Your task to perform on an android device: Open privacy settings Image 0: 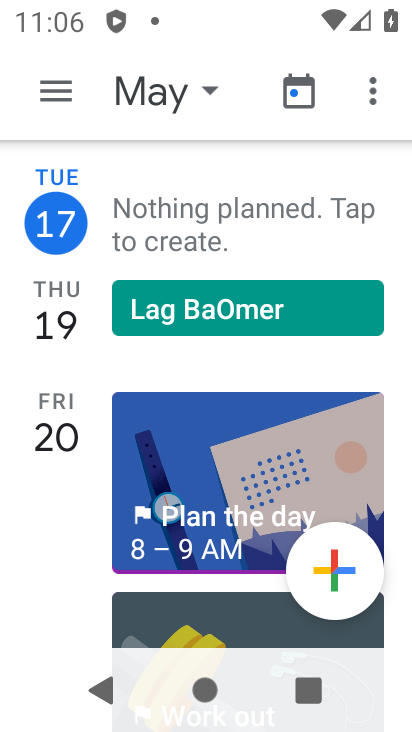
Step 0: press home button
Your task to perform on an android device: Open privacy settings Image 1: 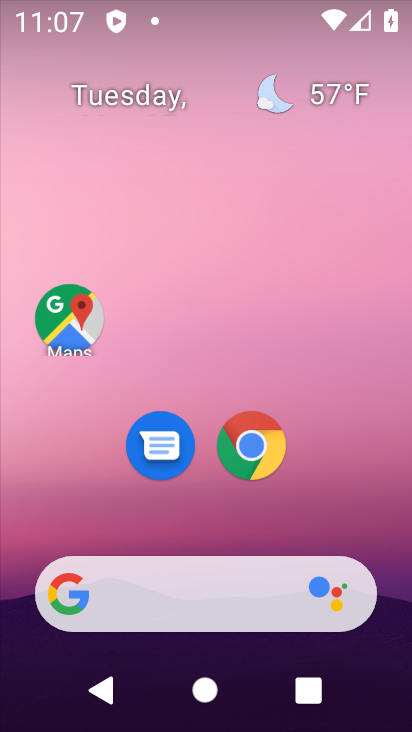
Step 1: drag from (373, 524) to (359, 87)
Your task to perform on an android device: Open privacy settings Image 2: 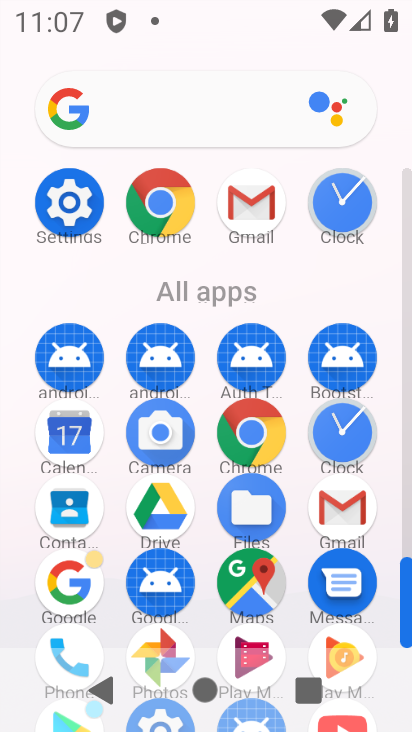
Step 2: click (81, 221)
Your task to perform on an android device: Open privacy settings Image 3: 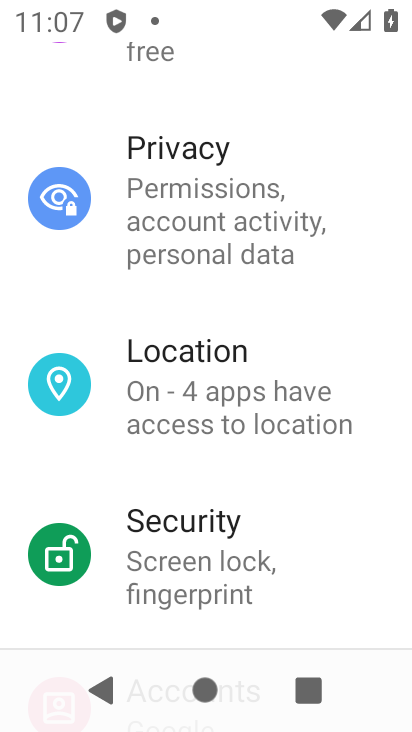
Step 3: drag from (361, 290) to (353, 428)
Your task to perform on an android device: Open privacy settings Image 4: 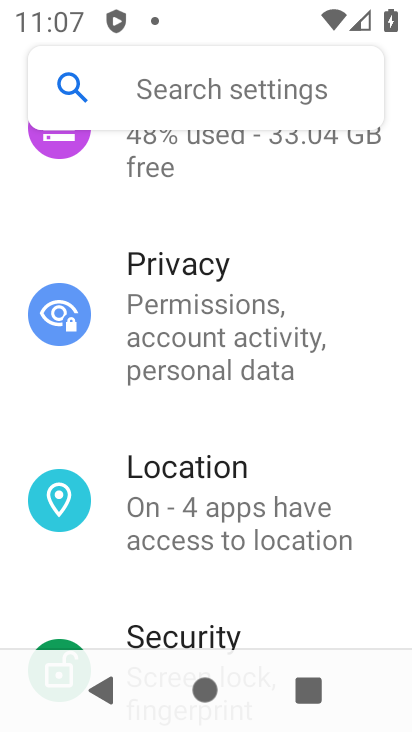
Step 4: drag from (366, 226) to (359, 364)
Your task to perform on an android device: Open privacy settings Image 5: 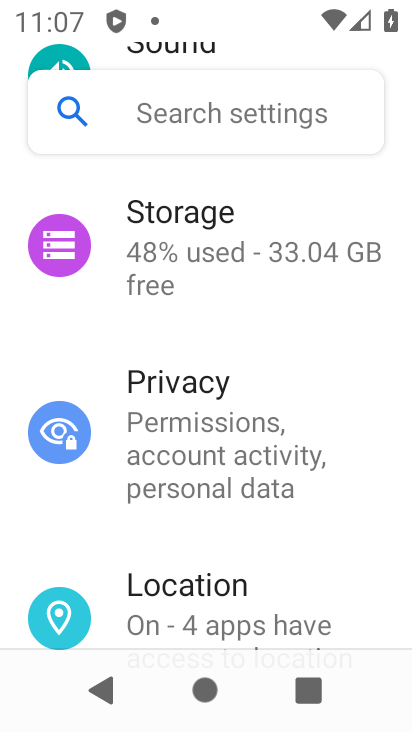
Step 5: drag from (369, 195) to (365, 357)
Your task to perform on an android device: Open privacy settings Image 6: 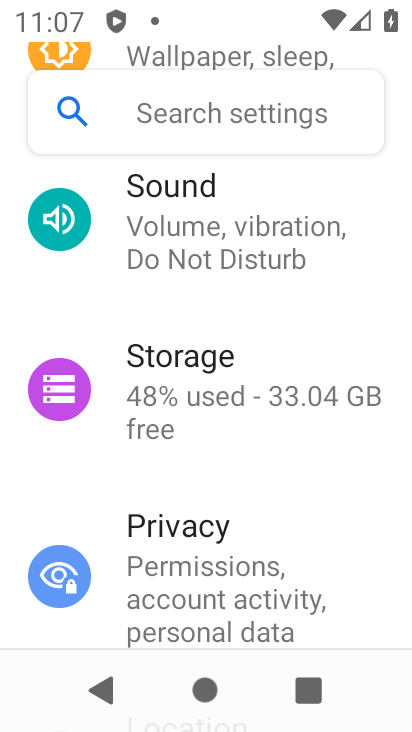
Step 6: drag from (361, 190) to (333, 357)
Your task to perform on an android device: Open privacy settings Image 7: 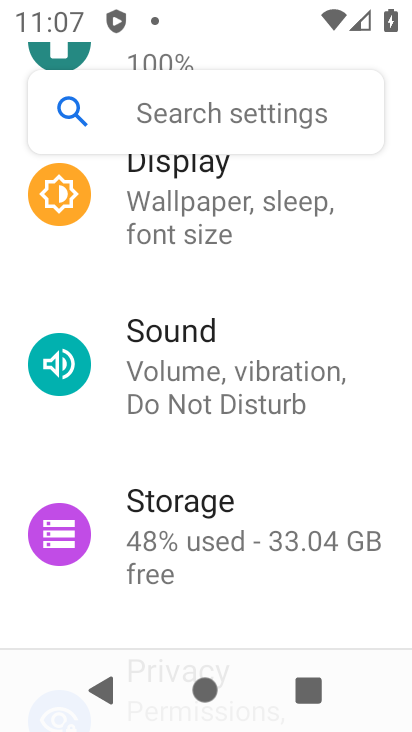
Step 7: drag from (355, 188) to (338, 349)
Your task to perform on an android device: Open privacy settings Image 8: 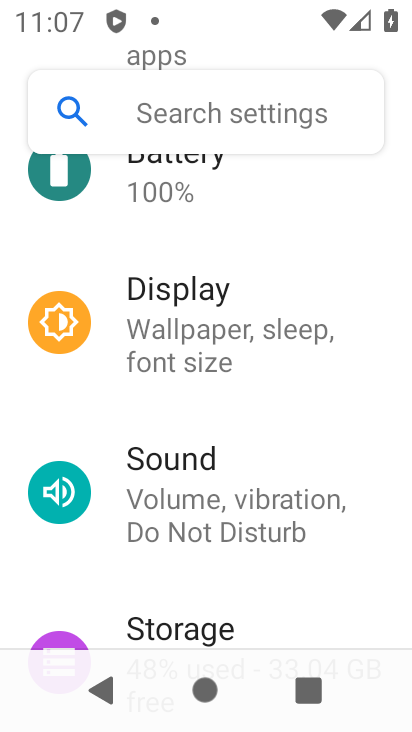
Step 8: drag from (359, 203) to (358, 327)
Your task to perform on an android device: Open privacy settings Image 9: 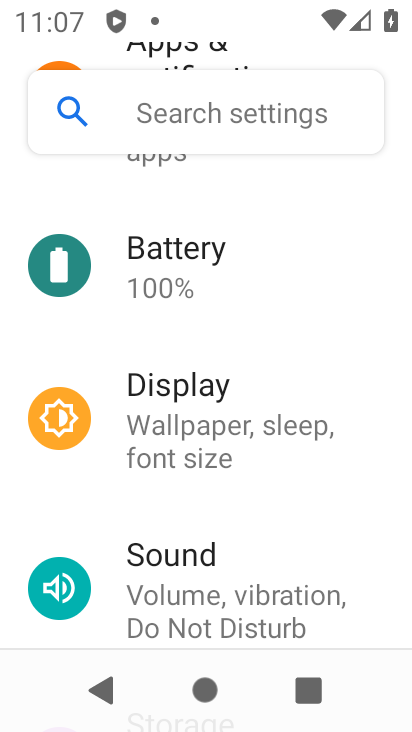
Step 9: drag from (354, 186) to (342, 408)
Your task to perform on an android device: Open privacy settings Image 10: 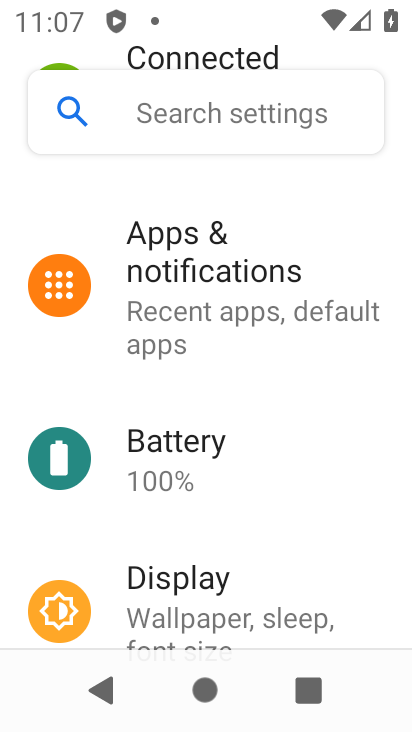
Step 10: drag from (327, 241) to (308, 418)
Your task to perform on an android device: Open privacy settings Image 11: 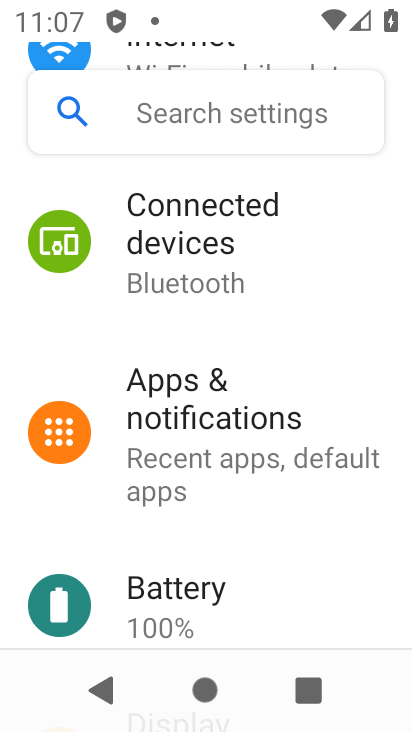
Step 11: drag from (317, 239) to (319, 405)
Your task to perform on an android device: Open privacy settings Image 12: 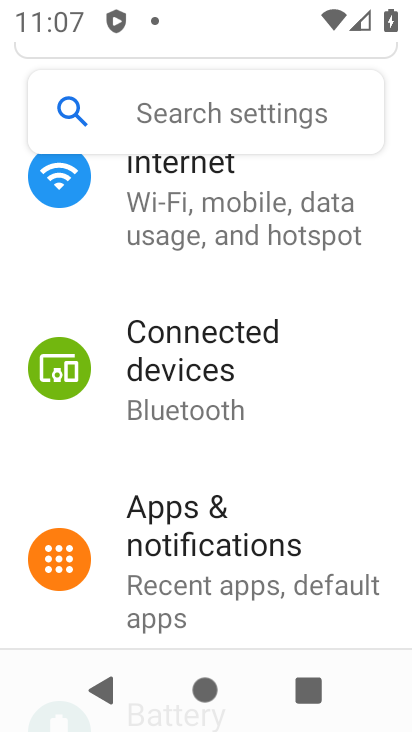
Step 12: drag from (316, 464) to (319, 322)
Your task to perform on an android device: Open privacy settings Image 13: 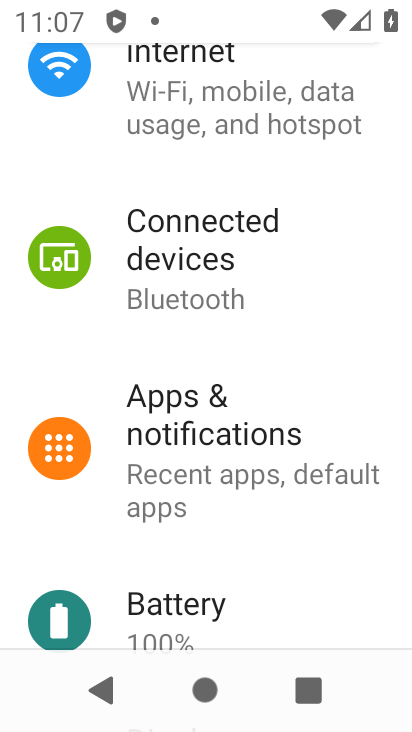
Step 13: drag from (296, 533) to (314, 345)
Your task to perform on an android device: Open privacy settings Image 14: 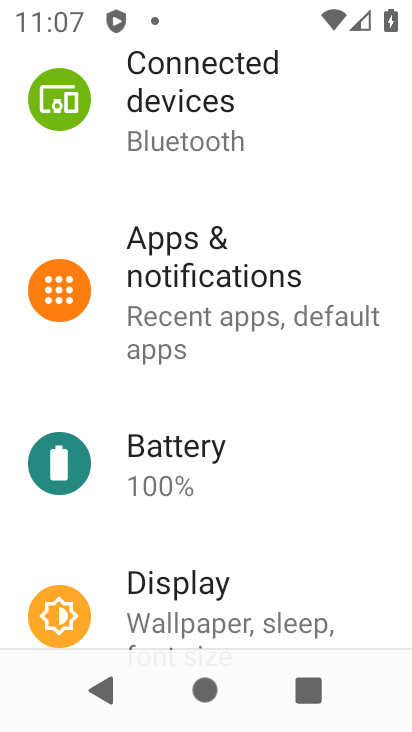
Step 14: drag from (304, 494) to (321, 348)
Your task to perform on an android device: Open privacy settings Image 15: 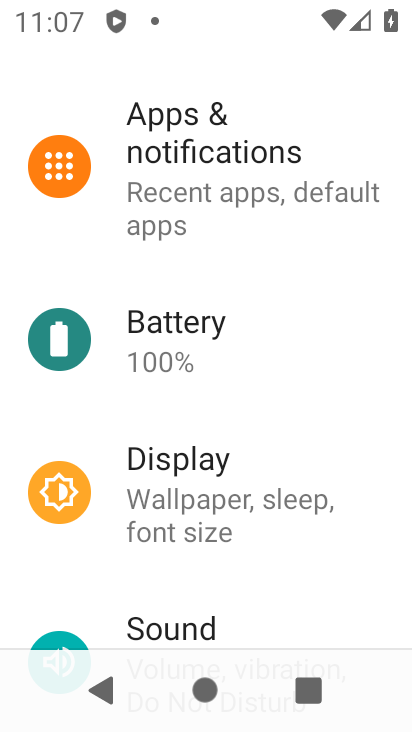
Step 15: drag from (311, 546) to (326, 354)
Your task to perform on an android device: Open privacy settings Image 16: 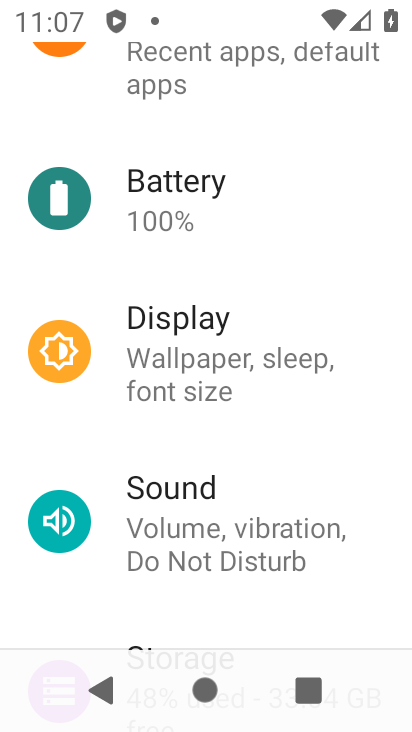
Step 16: drag from (304, 575) to (303, 399)
Your task to perform on an android device: Open privacy settings Image 17: 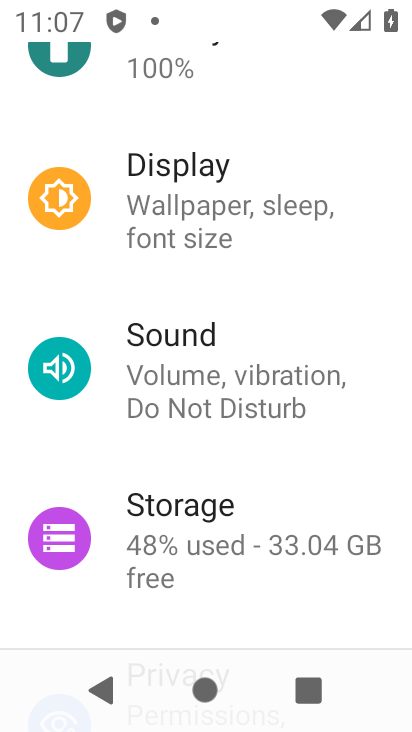
Step 17: drag from (281, 582) to (285, 435)
Your task to perform on an android device: Open privacy settings Image 18: 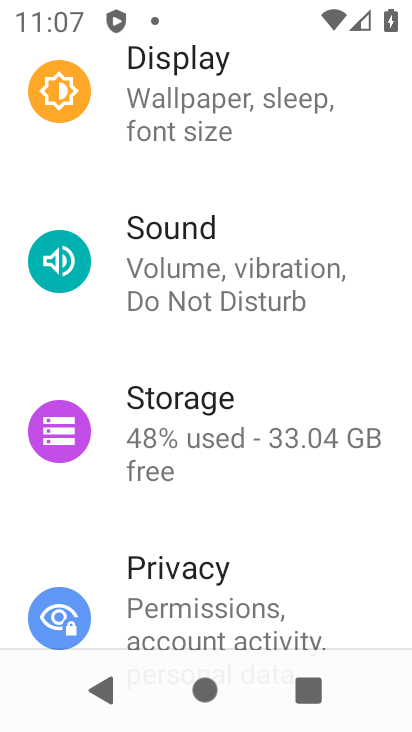
Step 18: drag from (307, 573) to (319, 417)
Your task to perform on an android device: Open privacy settings Image 19: 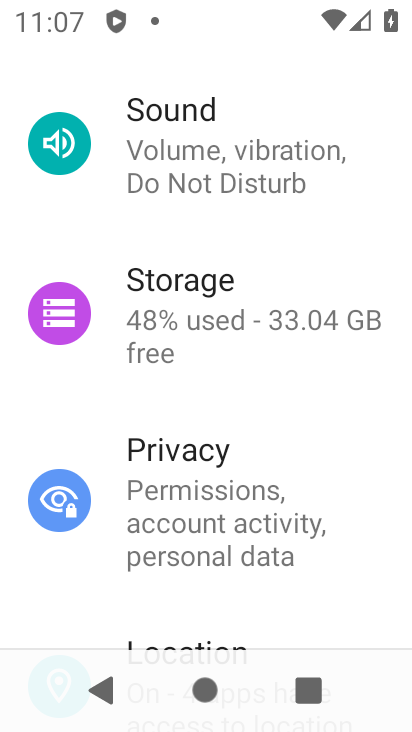
Step 19: drag from (330, 606) to (335, 432)
Your task to perform on an android device: Open privacy settings Image 20: 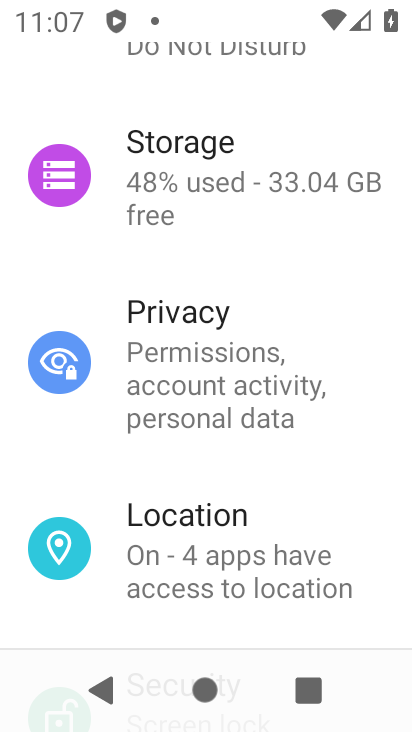
Step 20: click (253, 377)
Your task to perform on an android device: Open privacy settings Image 21: 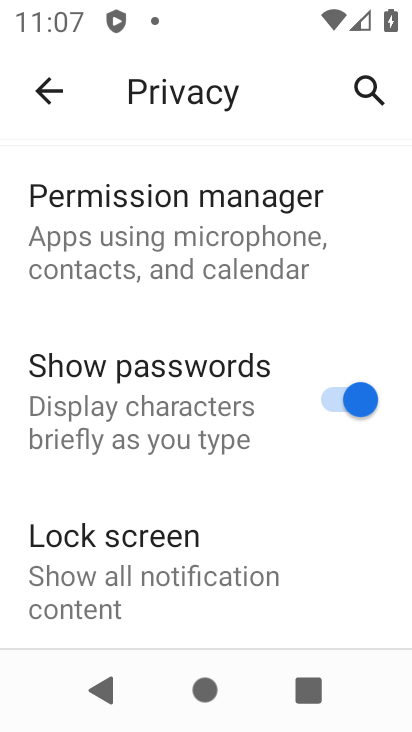
Step 21: task complete